Your task to perform on an android device: turn off notifications in google photos Image 0: 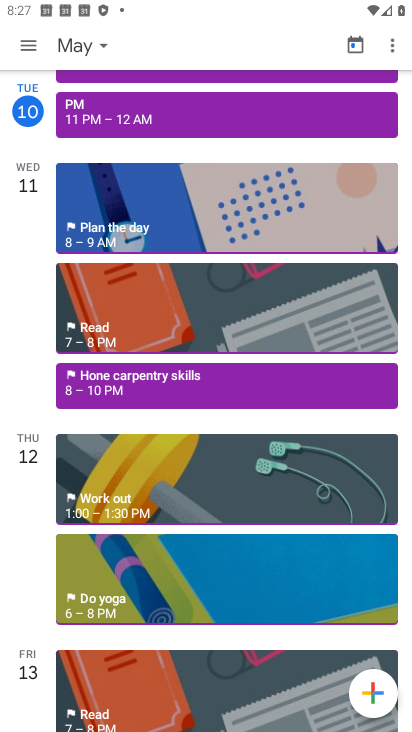
Step 0: press home button
Your task to perform on an android device: turn off notifications in google photos Image 1: 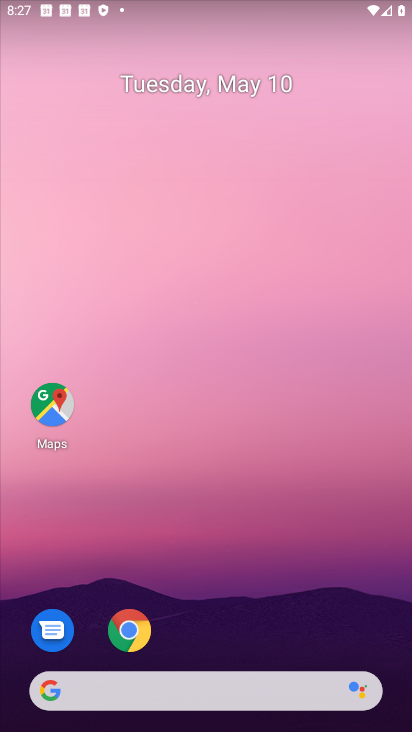
Step 1: drag from (156, 720) to (215, 291)
Your task to perform on an android device: turn off notifications in google photos Image 2: 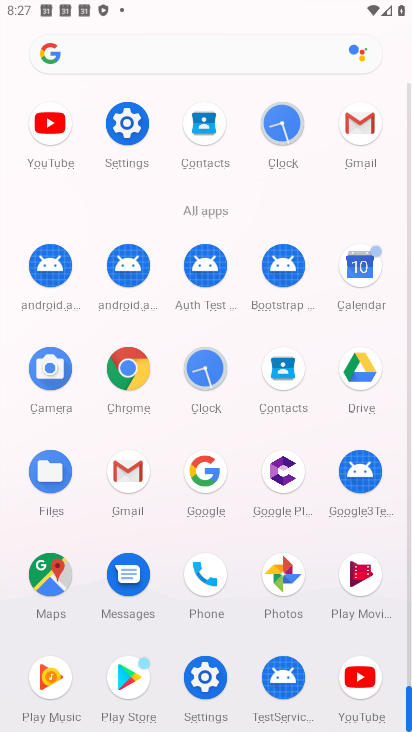
Step 2: click (292, 591)
Your task to perform on an android device: turn off notifications in google photos Image 3: 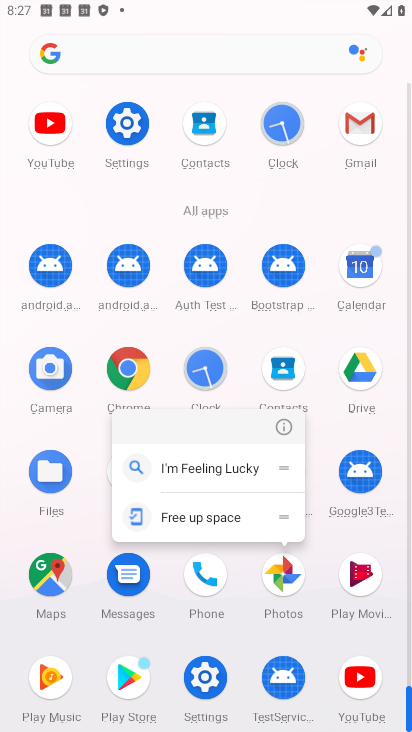
Step 3: click (283, 421)
Your task to perform on an android device: turn off notifications in google photos Image 4: 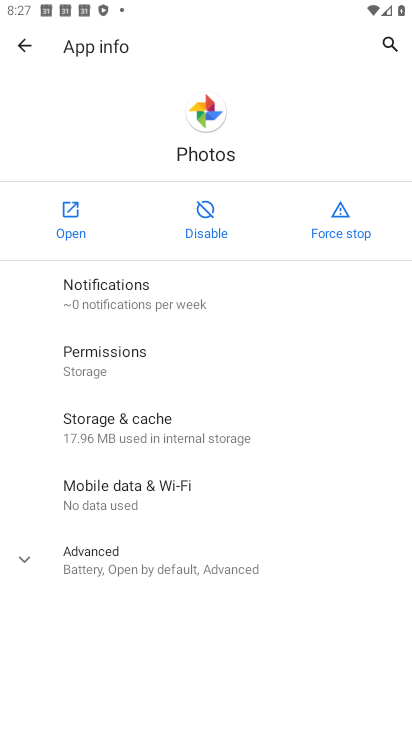
Step 4: click (209, 292)
Your task to perform on an android device: turn off notifications in google photos Image 5: 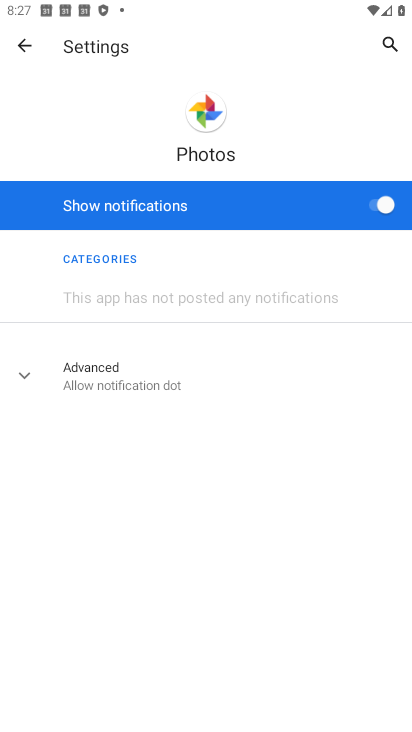
Step 5: click (388, 206)
Your task to perform on an android device: turn off notifications in google photos Image 6: 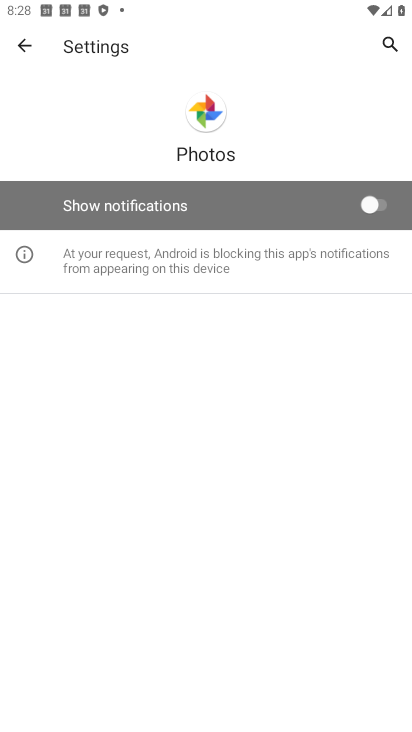
Step 6: task complete